Your task to perform on an android device: change the clock display to analog Image 0: 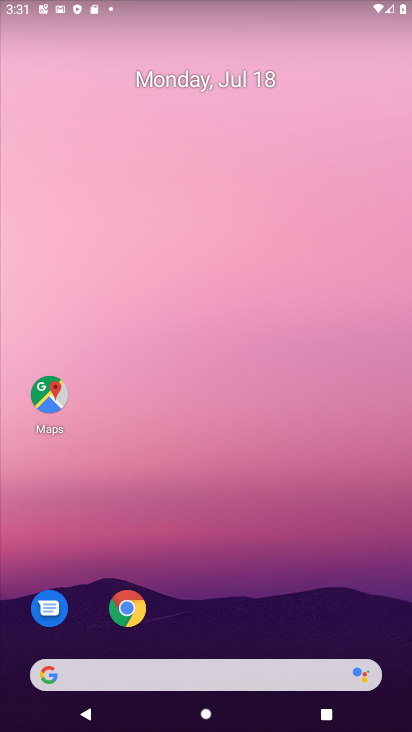
Step 0: drag from (255, 665) to (248, 31)
Your task to perform on an android device: change the clock display to analog Image 1: 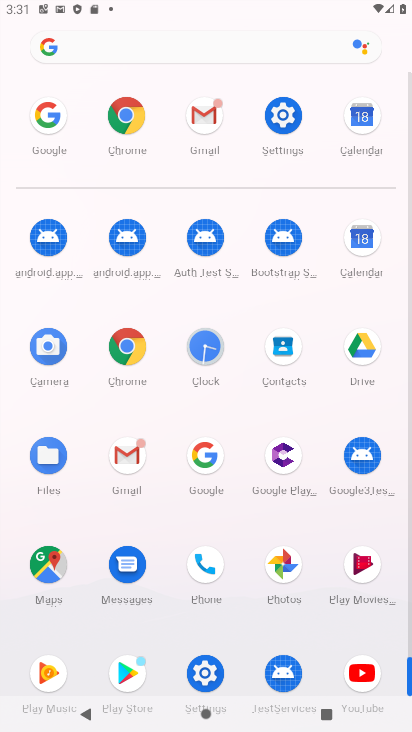
Step 1: click (208, 364)
Your task to perform on an android device: change the clock display to analog Image 2: 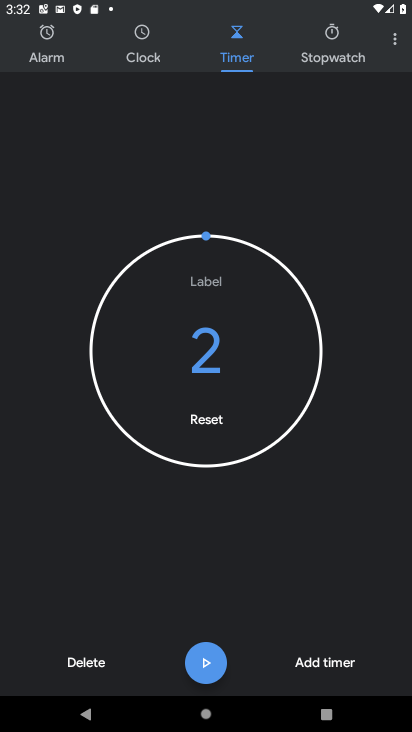
Step 2: click (389, 46)
Your task to perform on an android device: change the clock display to analog Image 3: 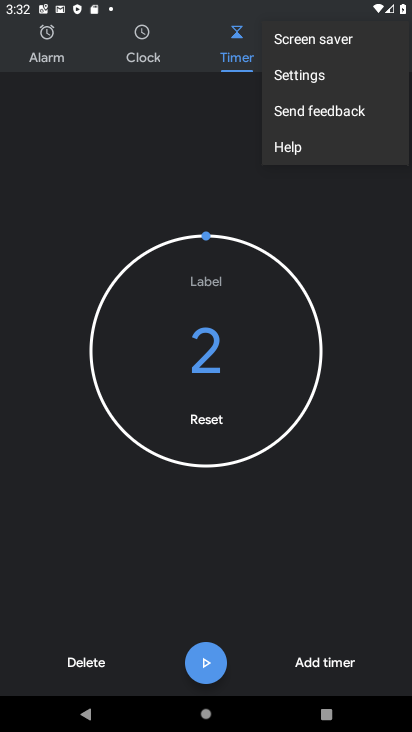
Step 3: click (306, 71)
Your task to perform on an android device: change the clock display to analog Image 4: 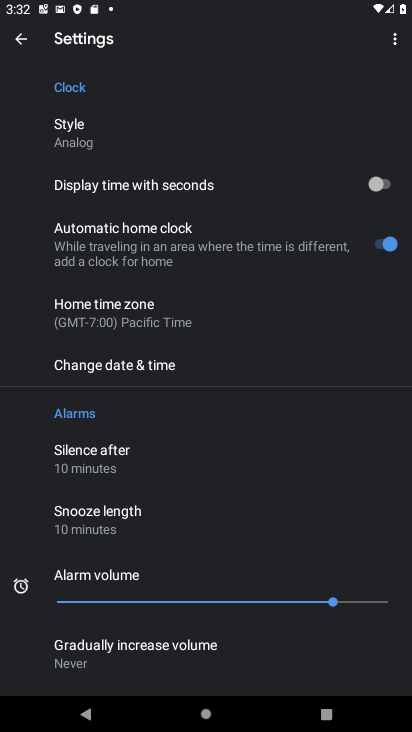
Step 4: click (129, 140)
Your task to perform on an android device: change the clock display to analog Image 5: 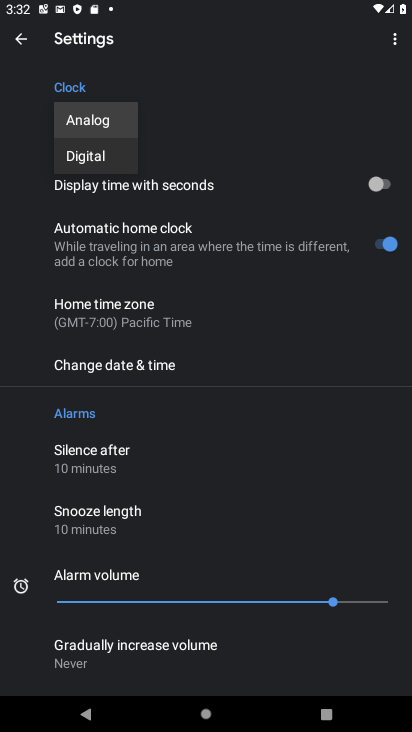
Step 5: task complete